Your task to perform on an android device: clear all cookies in the chrome app Image 0: 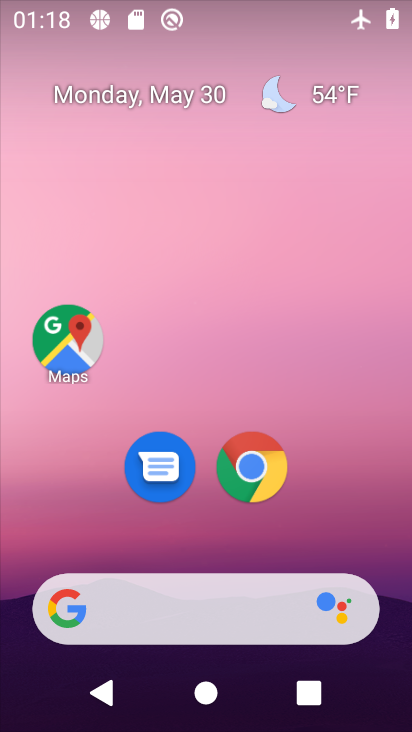
Step 0: drag from (199, 570) to (335, 37)
Your task to perform on an android device: clear all cookies in the chrome app Image 1: 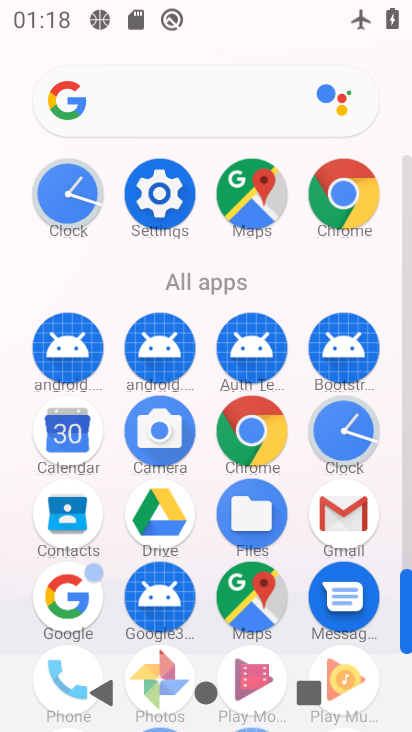
Step 1: click (341, 197)
Your task to perform on an android device: clear all cookies in the chrome app Image 2: 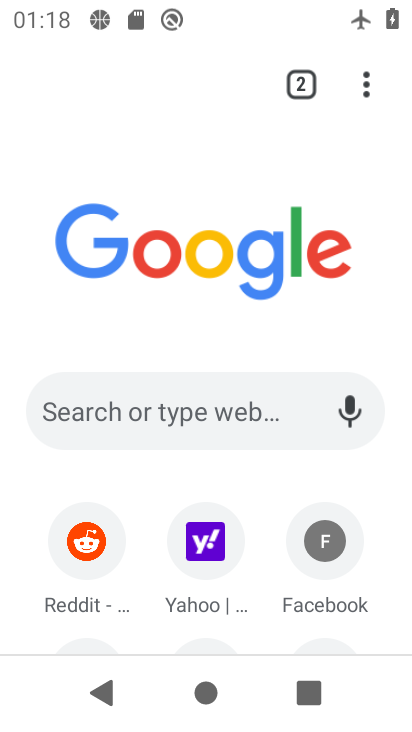
Step 2: click (361, 100)
Your task to perform on an android device: clear all cookies in the chrome app Image 3: 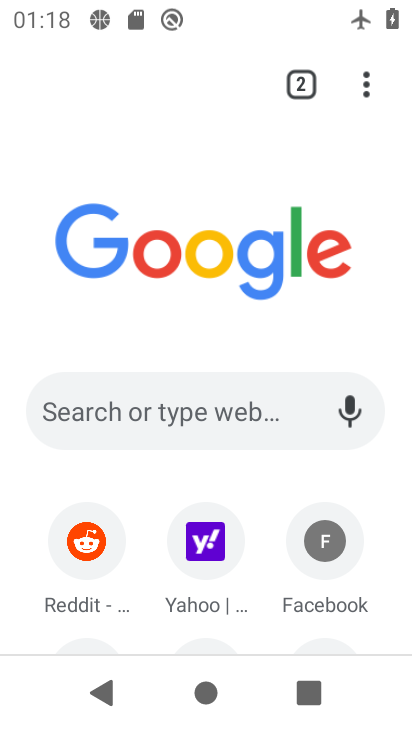
Step 3: click (355, 83)
Your task to perform on an android device: clear all cookies in the chrome app Image 4: 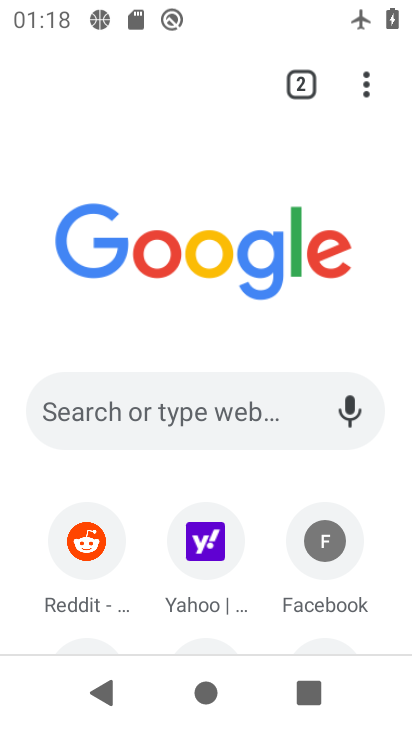
Step 4: drag from (367, 81) to (93, 518)
Your task to perform on an android device: clear all cookies in the chrome app Image 5: 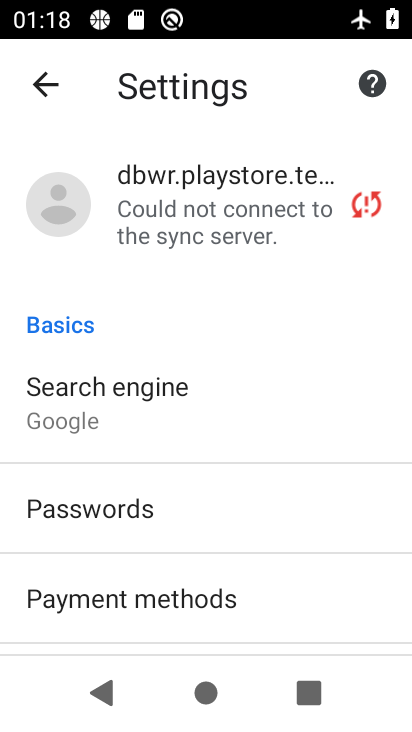
Step 5: drag from (94, 569) to (70, 140)
Your task to perform on an android device: clear all cookies in the chrome app Image 6: 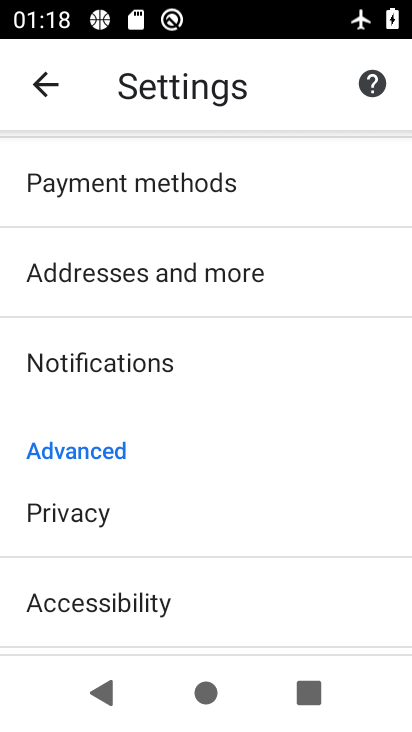
Step 6: click (111, 518)
Your task to perform on an android device: clear all cookies in the chrome app Image 7: 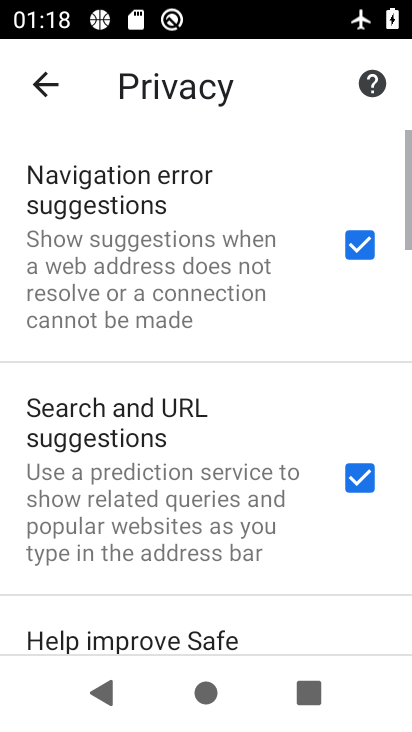
Step 7: drag from (111, 519) to (57, 4)
Your task to perform on an android device: clear all cookies in the chrome app Image 8: 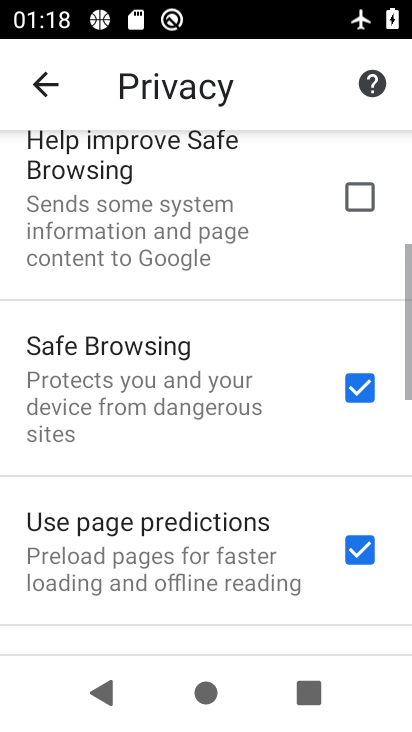
Step 8: drag from (120, 576) to (116, 3)
Your task to perform on an android device: clear all cookies in the chrome app Image 9: 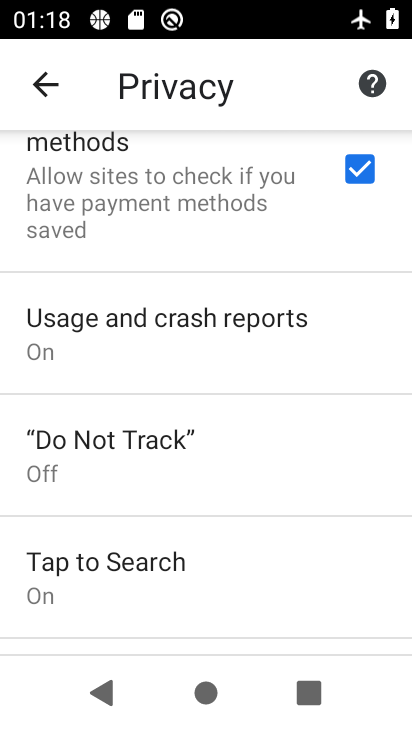
Step 9: drag from (171, 570) to (165, 17)
Your task to perform on an android device: clear all cookies in the chrome app Image 10: 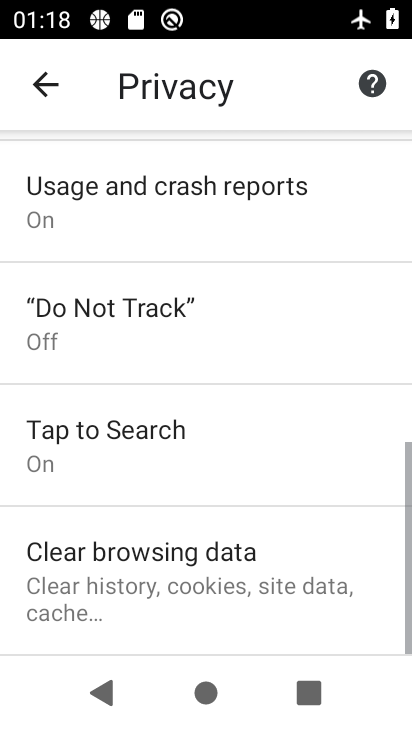
Step 10: click (194, 580)
Your task to perform on an android device: clear all cookies in the chrome app Image 11: 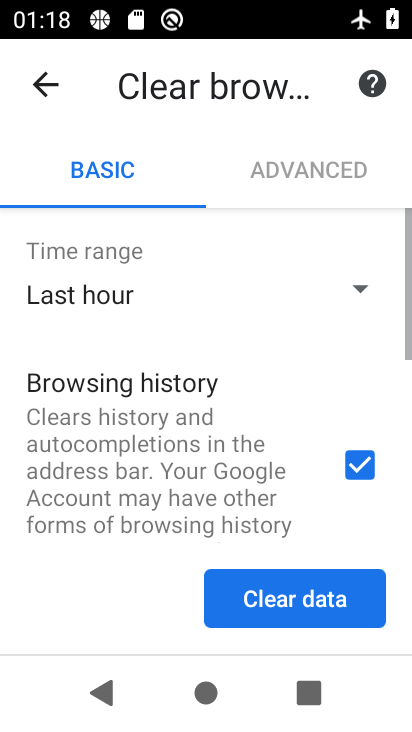
Step 11: drag from (260, 509) to (252, 97)
Your task to perform on an android device: clear all cookies in the chrome app Image 12: 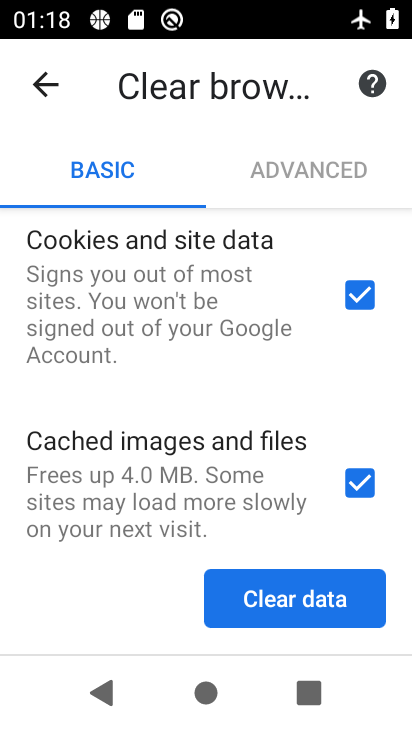
Step 12: click (301, 614)
Your task to perform on an android device: clear all cookies in the chrome app Image 13: 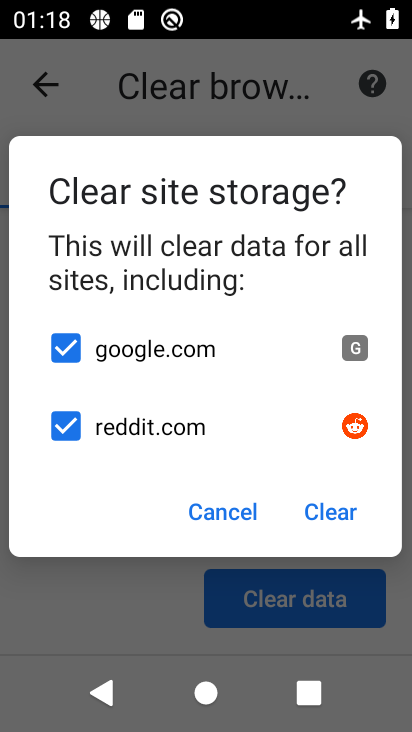
Step 13: click (346, 514)
Your task to perform on an android device: clear all cookies in the chrome app Image 14: 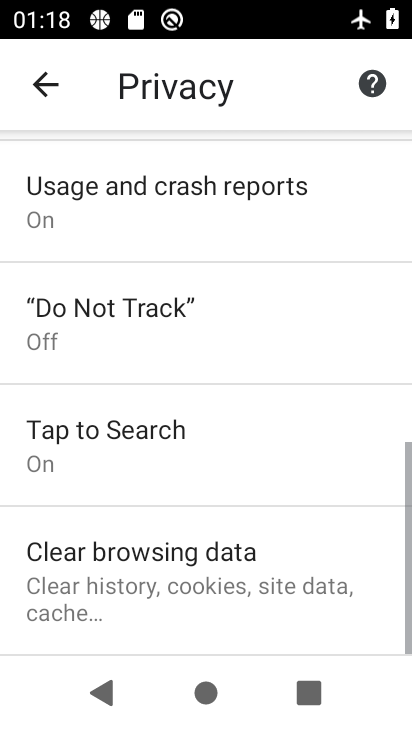
Step 14: task complete